Your task to perform on an android device: check storage Image 0: 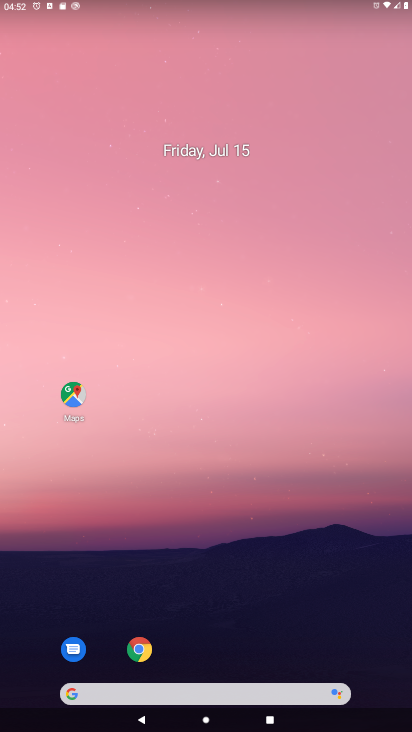
Step 0: drag from (390, 663) to (335, 98)
Your task to perform on an android device: check storage Image 1: 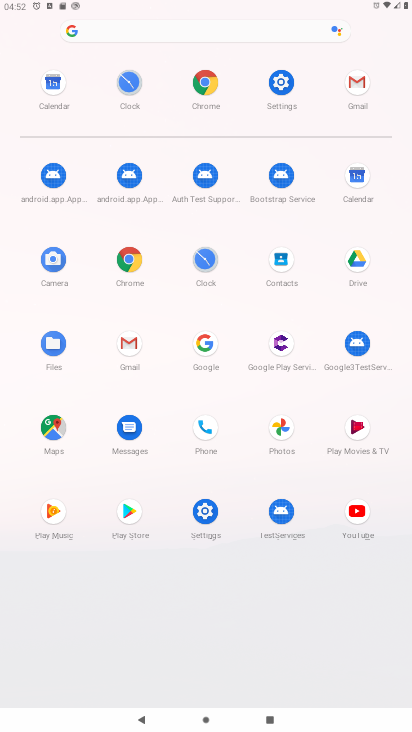
Step 1: click (203, 511)
Your task to perform on an android device: check storage Image 2: 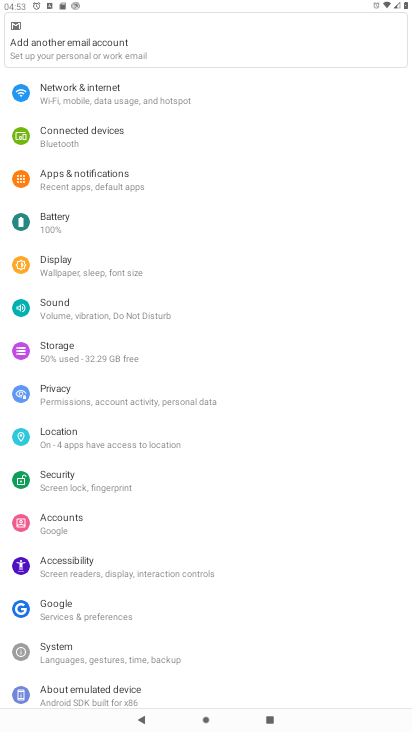
Step 2: click (68, 349)
Your task to perform on an android device: check storage Image 3: 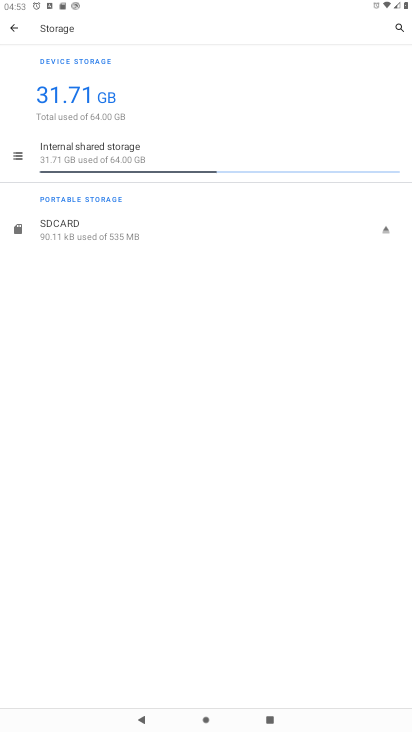
Step 3: task complete